Your task to perform on an android device: set the stopwatch Image 0: 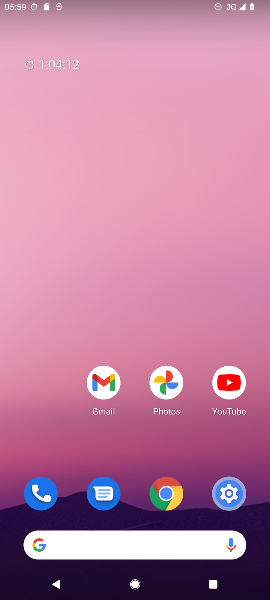
Step 0: press home button
Your task to perform on an android device: set the stopwatch Image 1: 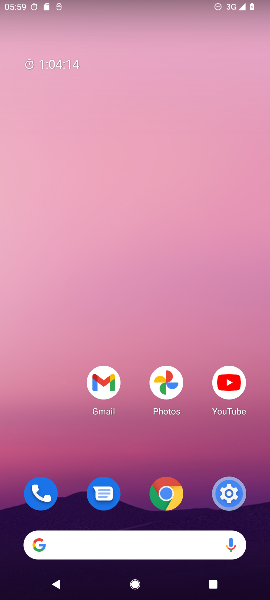
Step 1: drag from (66, 474) to (54, 195)
Your task to perform on an android device: set the stopwatch Image 2: 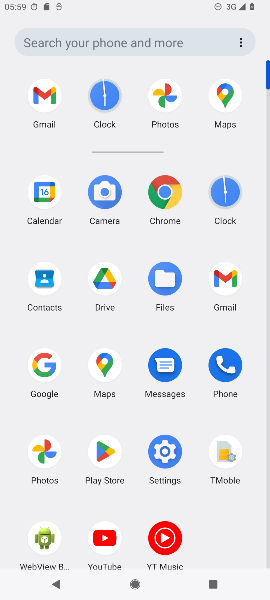
Step 2: click (222, 189)
Your task to perform on an android device: set the stopwatch Image 3: 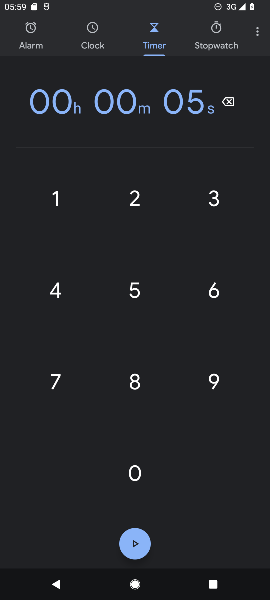
Step 3: click (214, 34)
Your task to perform on an android device: set the stopwatch Image 4: 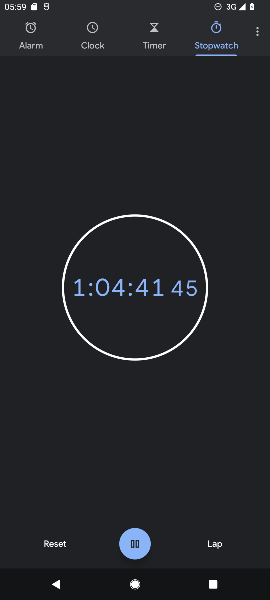
Step 4: task complete